Your task to perform on an android device: visit the assistant section in the google photos Image 0: 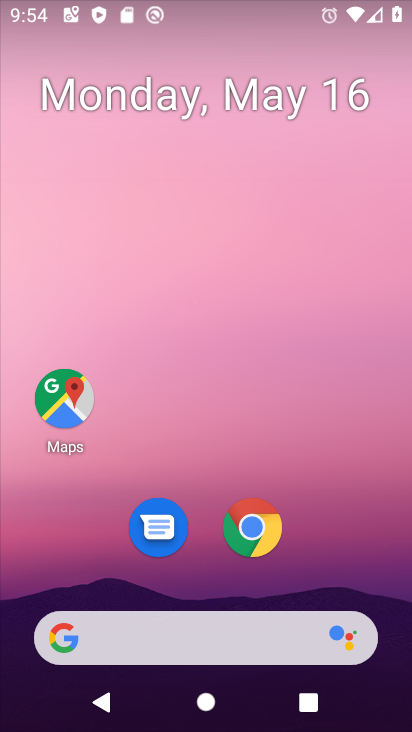
Step 0: drag from (338, 580) to (308, 3)
Your task to perform on an android device: visit the assistant section in the google photos Image 1: 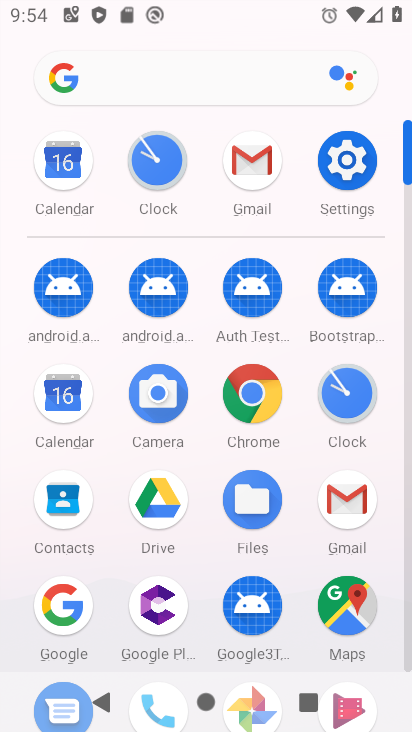
Step 1: click (406, 535)
Your task to perform on an android device: visit the assistant section in the google photos Image 2: 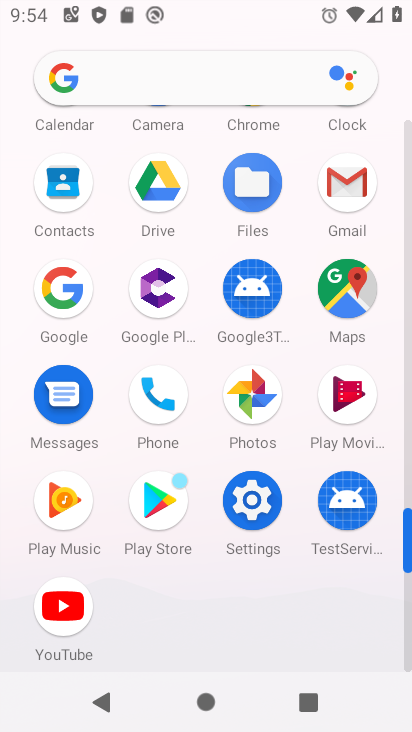
Step 2: click (247, 403)
Your task to perform on an android device: visit the assistant section in the google photos Image 3: 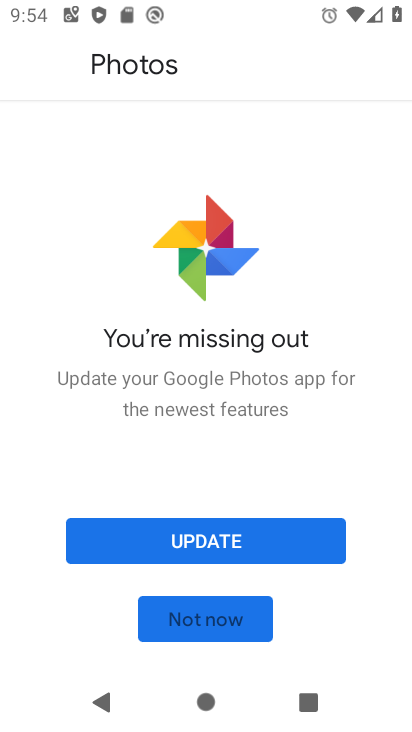
Step 3: click (233, 609)
Your task to perform on an android device: visit the assistant section in the google photos Image 4: 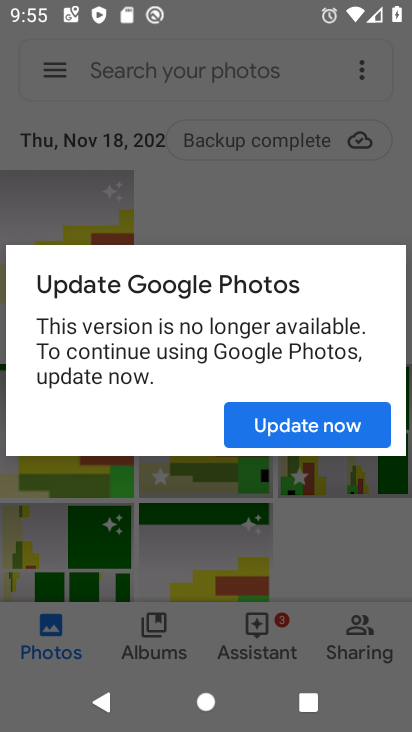
Step 4: click (307, 431)
Your task to perform on an android device: visit the assistant section in the google photos Image 5: 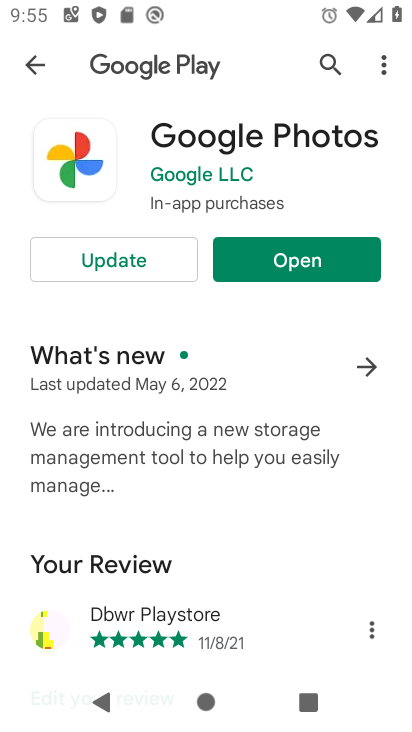
Step 5: click (281, 254)
Your task to perform on an android device: visit the assistant section in the google photos Image 6: 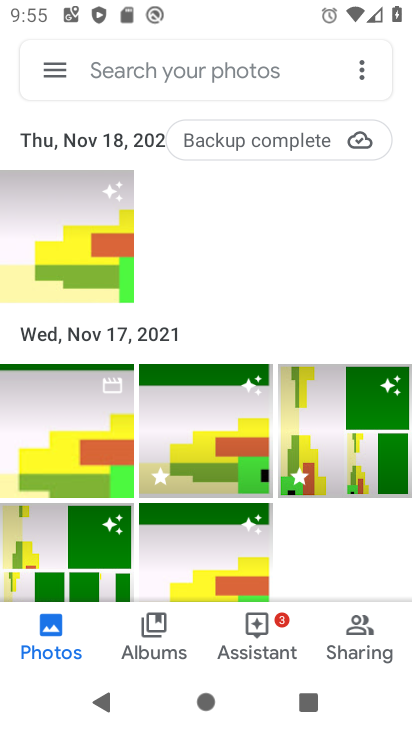
Step 6: click (254, 636)
Your task to perform on an android device: visit the assistant section in the google photos Image 7: 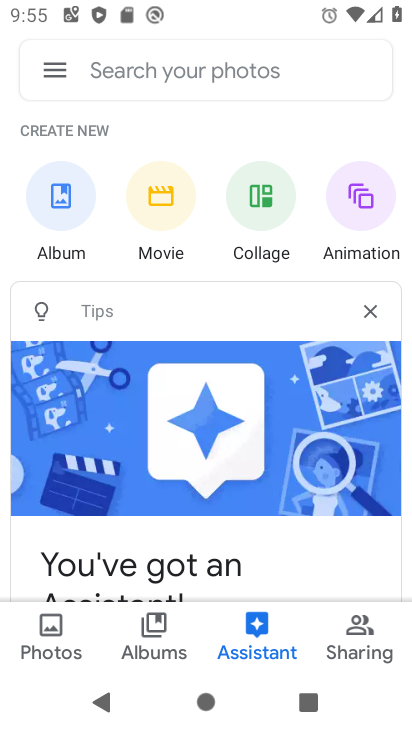
Step 7: task complete